Your task to perform on an android device: Open network settings Image 0: 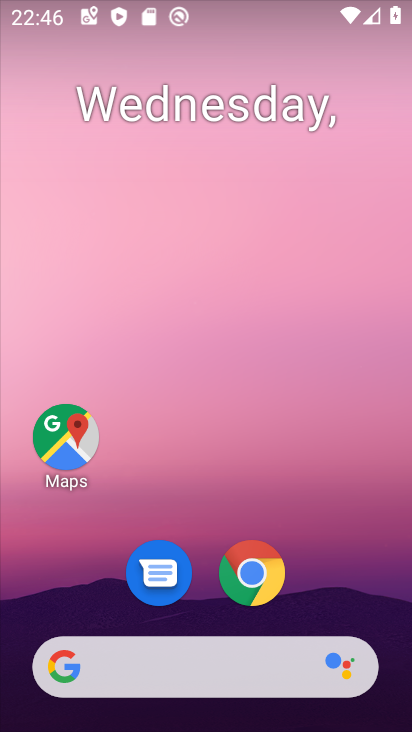
Step 0: drag from (143, 574) to (168, 175)
Your task to perform on an android device: Open network settings Image 1: 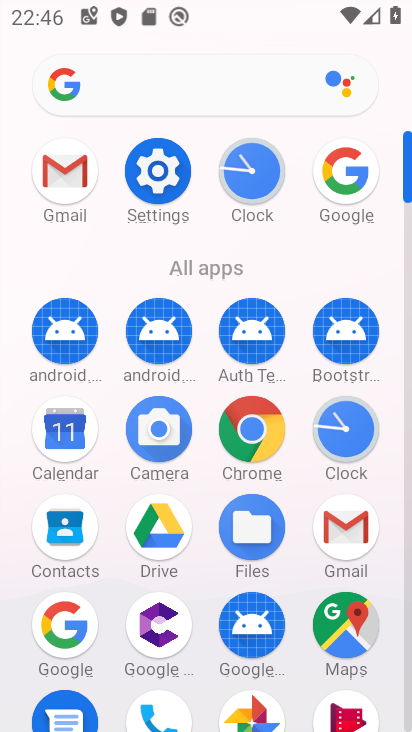
Step 1: click (150, 169)
Your task to perform on an android device: Open network settings Image 2: 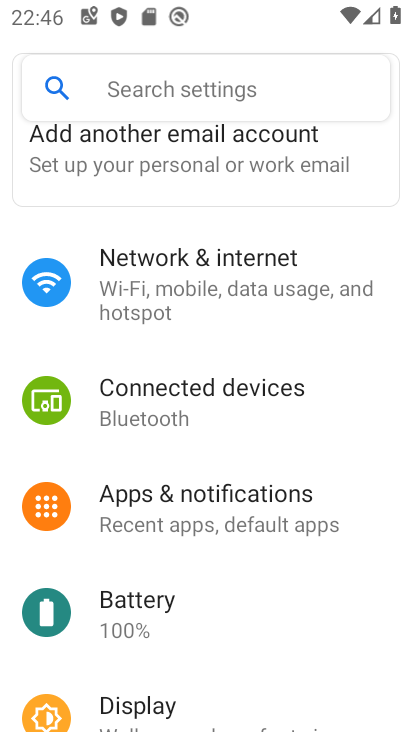
Step 2: click (147, 287)
Your task to perform on an android device: Open network settings Image 3: 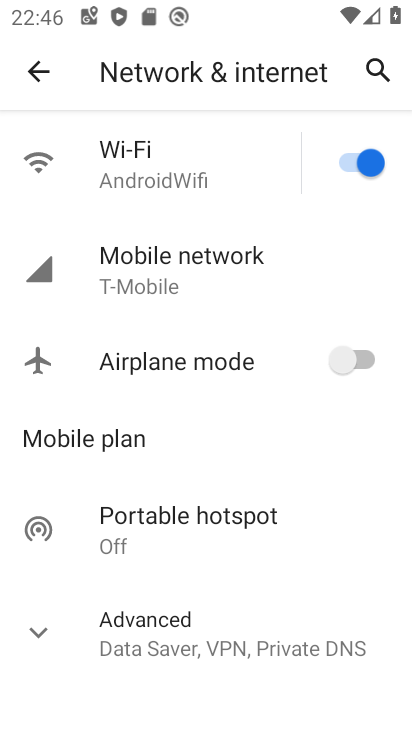
Step 3: click (148, 632)
Your task to perform on an android device: Open network settings Image 4: 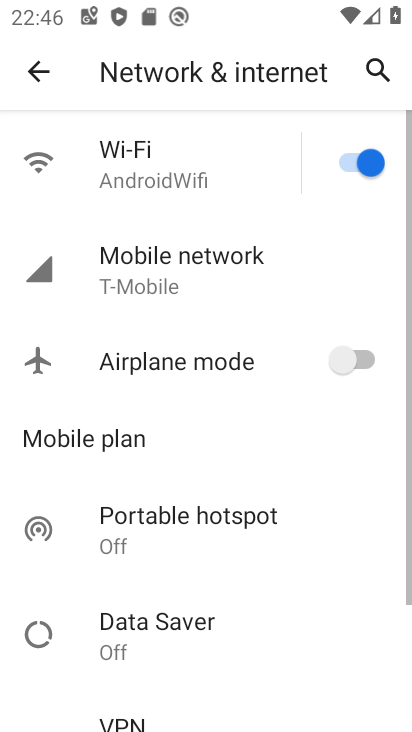
Step 4: task complete